Your task to perform on an android device: check out phone information Image 0: 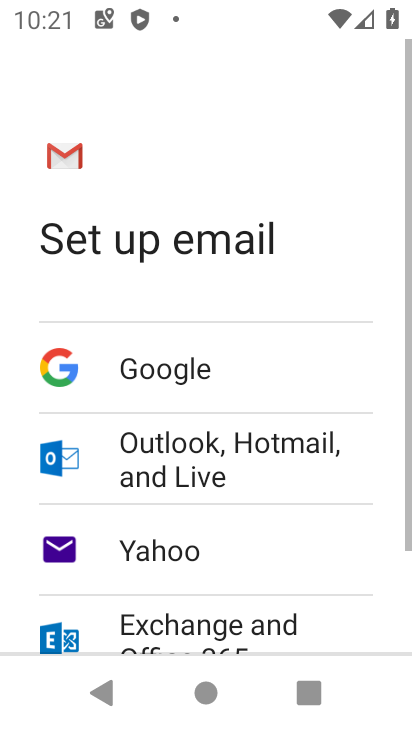
Step 0: press home button
Your task to perform on an android device: check out phone information Image 1: 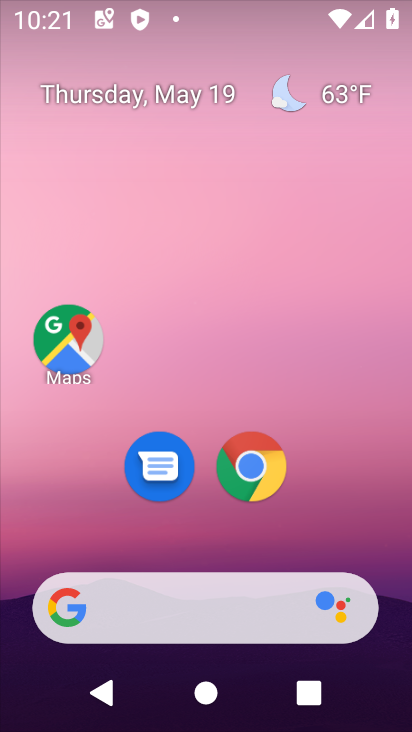
Step 1: drag from (392, 659) to (209, 29)
Your task to perform on an android device: check out phone information Image 2: 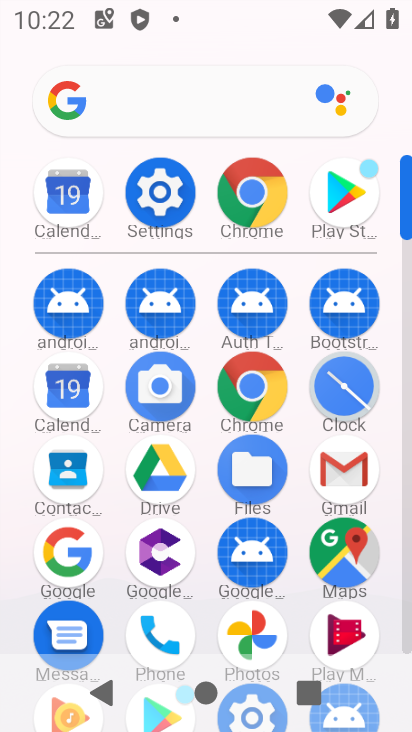
Step 2: click (148, 214)
Your task to perform on an android device: check out phone information Image 3: 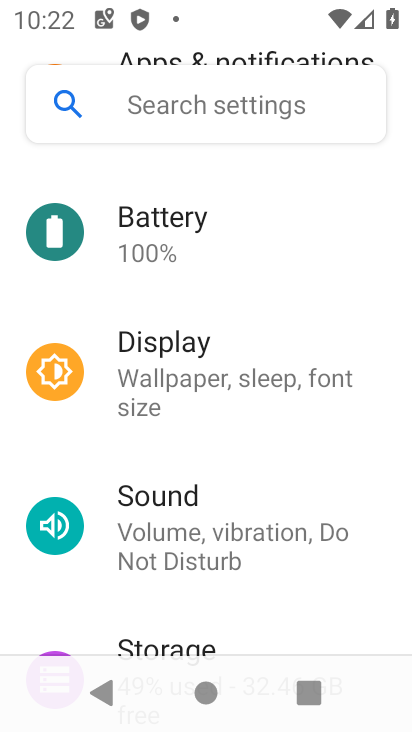
Step 3: drag from (152, 529) to (205, 83)
Your task to perform on an android device: check out phone information Image 4: 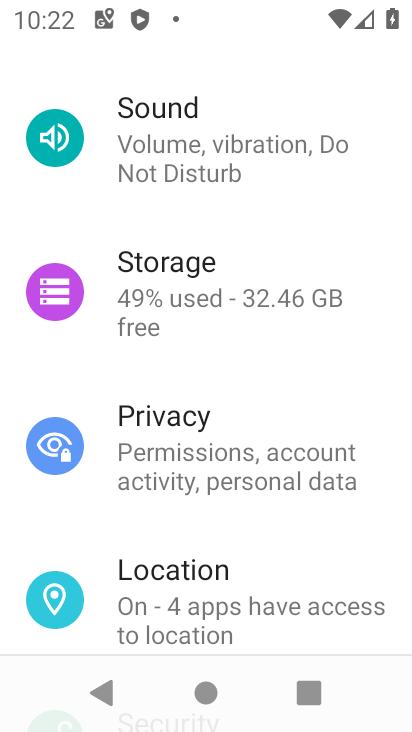
Step 4: drag from (164, 593) to (252, 63)
Your task to perform on an android device: check out phone information Image 5: 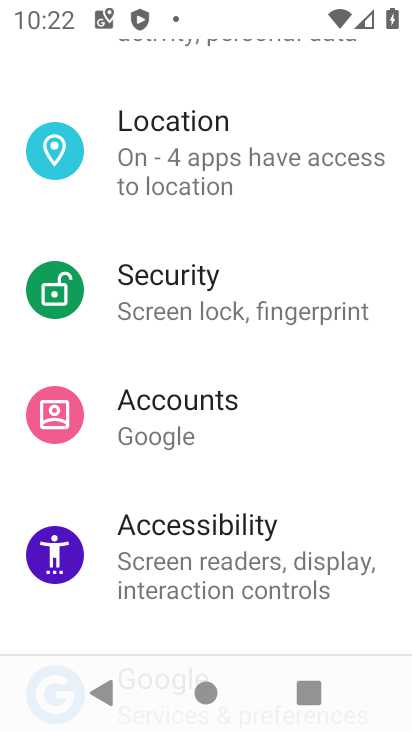
Step 5: drag from (224, 588) to (237, 55)
Your task to perform on an android device: check out phone information Image 6: 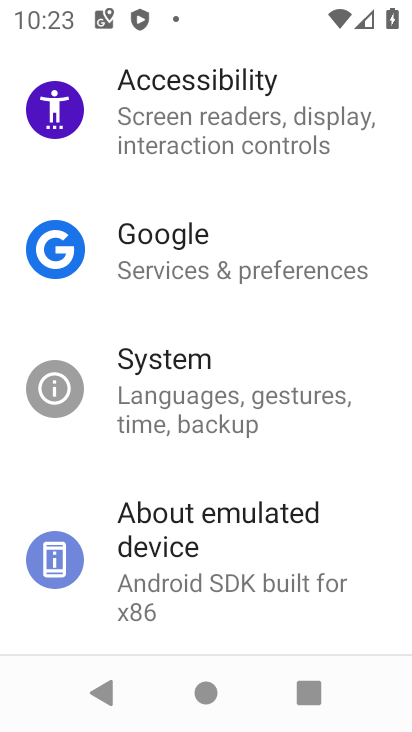
Step 6: click (263, 556)
Your task to perform on an android device: check out phone information Image 7: 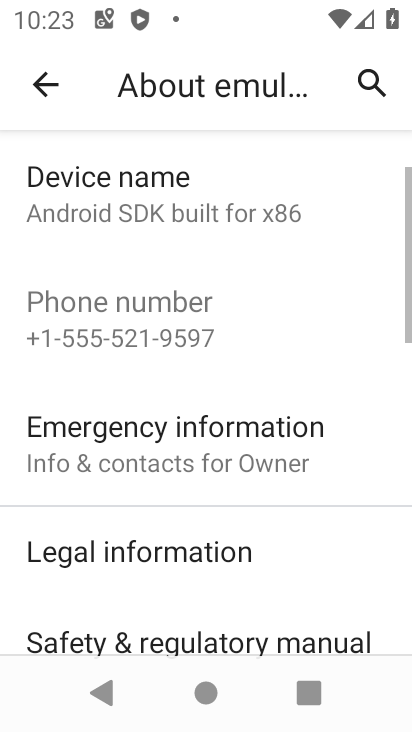
Step 7: task complete